Your task to perform on an android device: snooze an email in the gmail app Image 0: 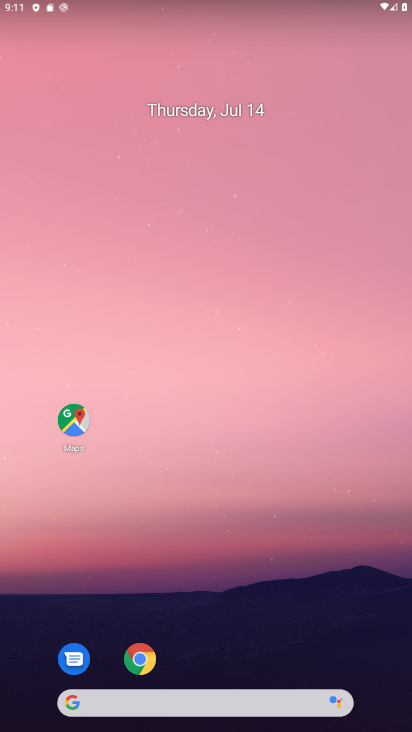
Step 0: drag from (354, 711) to (411, 574)
Your task to perform on an android device: snooze an email in the gmail app Image 1: 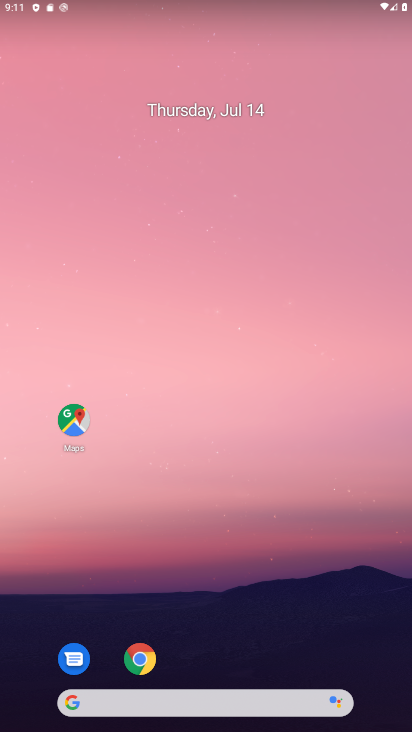
Step 1: drag from (295, 679) to (343, 153)
Your task to perform on an android device: snooze an email in the gmail app Image 2: 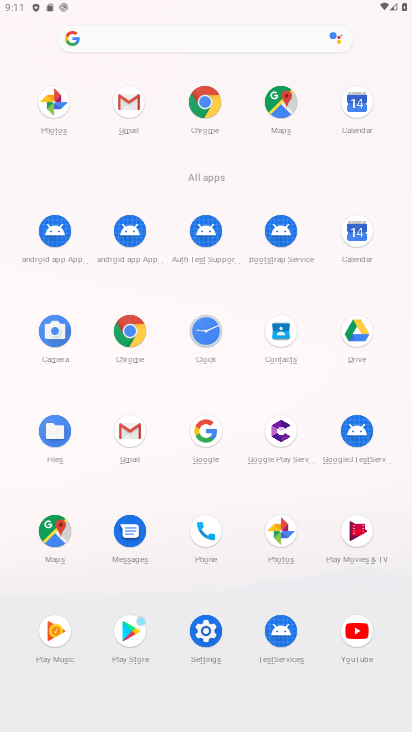
Step 2: click (118, 433)
Your task to perform on an android device: snooze an email in the gmail app Image 3: 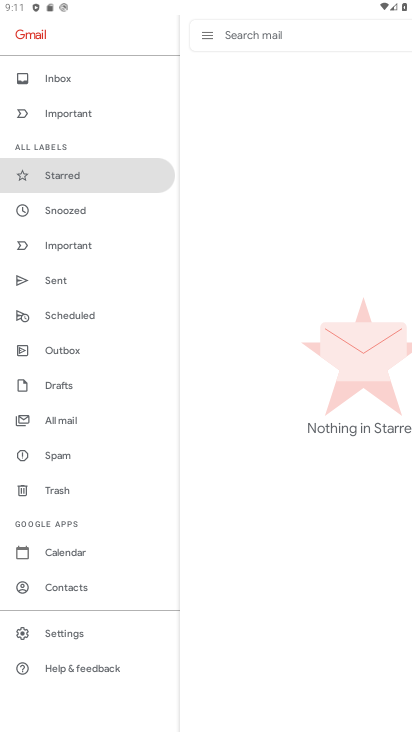
Step 3: click (117, 214)
Your task to perform on an android device: snooze an email in the gmail app Image 4: 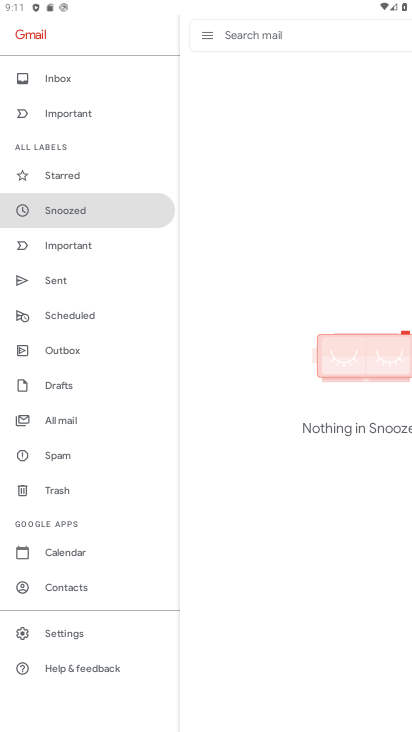
Step 4: task complete